Your task to perform on an android device: Go to Yahoo.com Image 0: 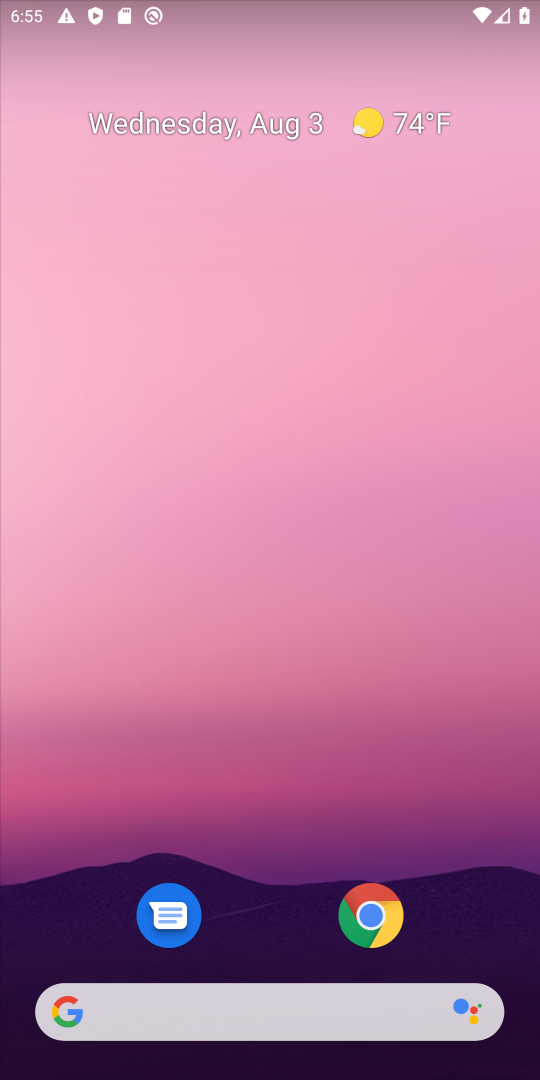
Step 0: press home button
Your task to perform on an android device: Go to Yahoo.com Image 1: 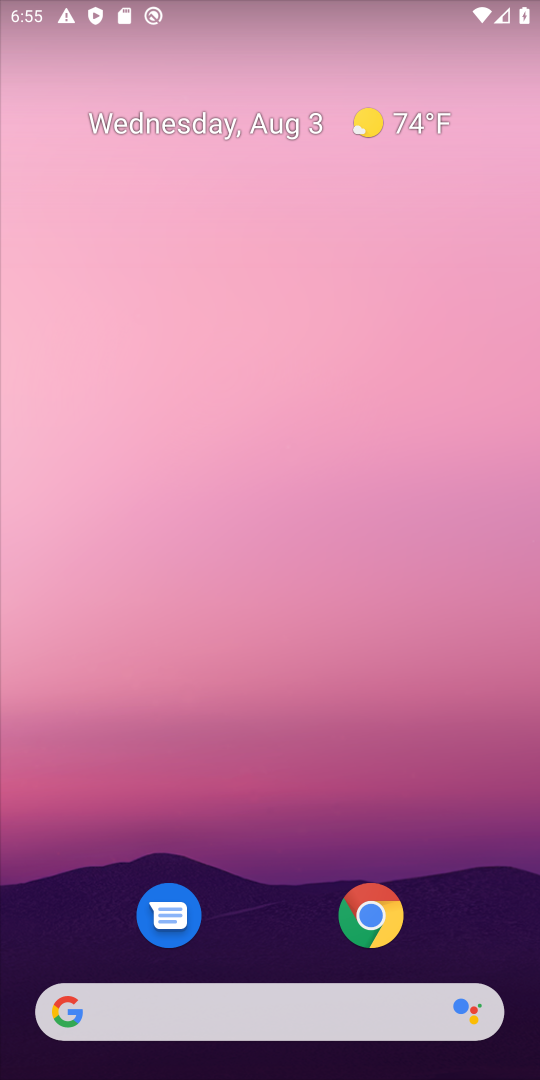
Step 1: click (378, 904)
Your task to perform on an android device: Go to Yahoo.com Image 2: 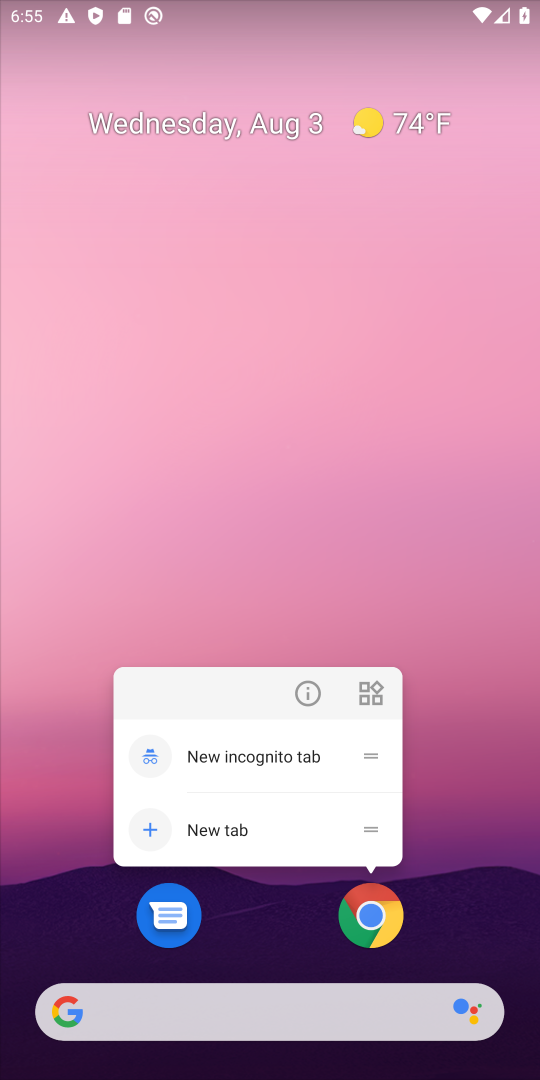
Step 2: click (366, 933)
Your task to perform on an android device: Go to Yahoo.com Image 3: 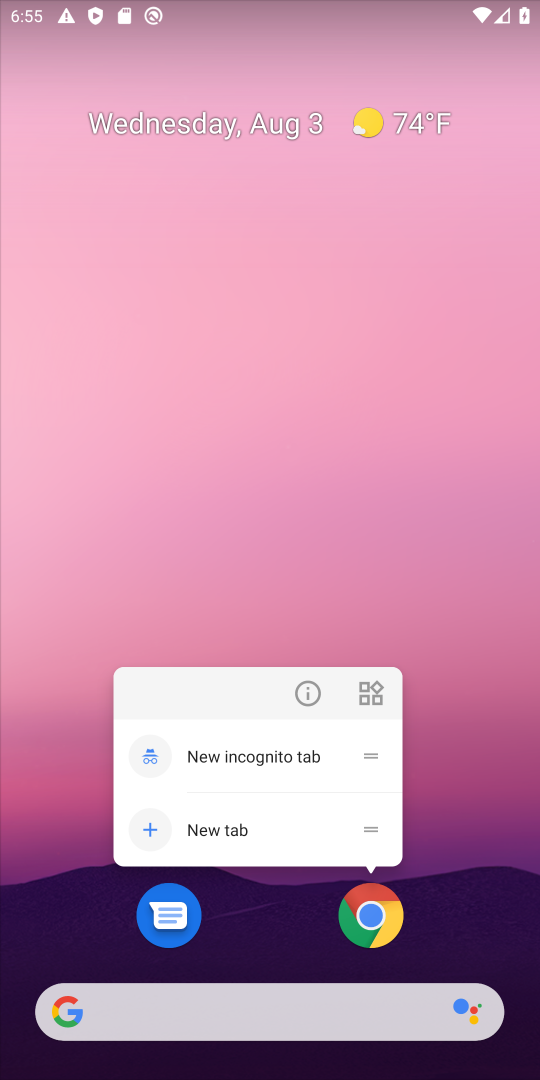
Step 3: click (366, 933)
Your task to perform on an android device: Go to Yahoo.com Image 4: 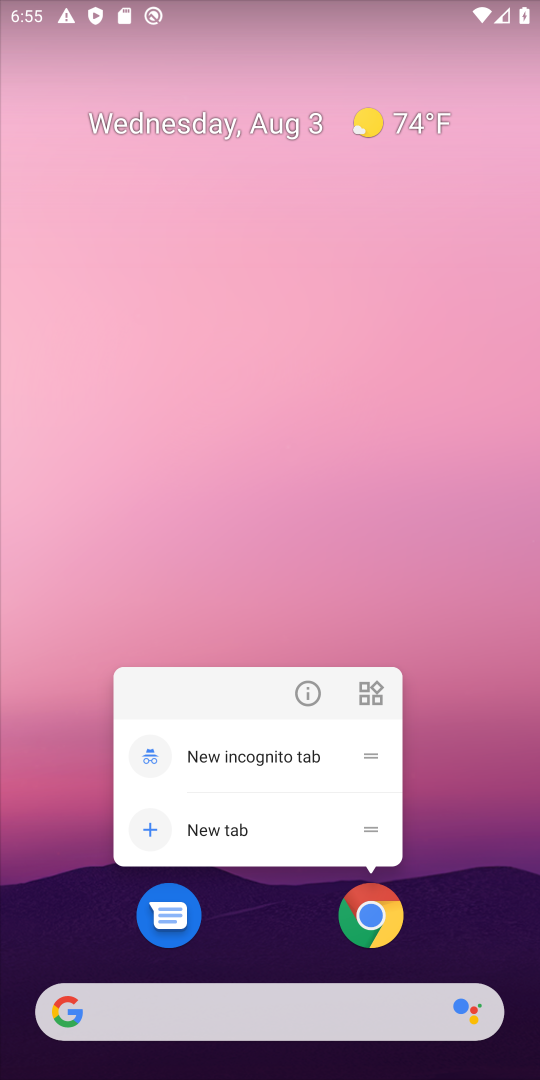
Step 4: click (366, 933)
Your task to perform on an android device: Go to Yahoo.com Image 5: 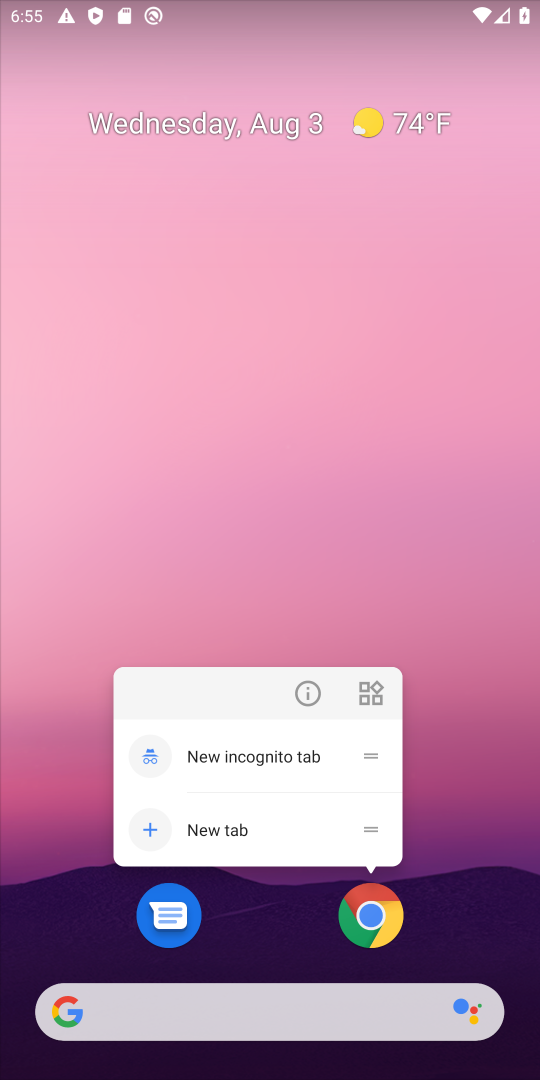
Step 5: click (385, 900)
Your task to perform on an android device: Go to Yahoo.com Image 6: 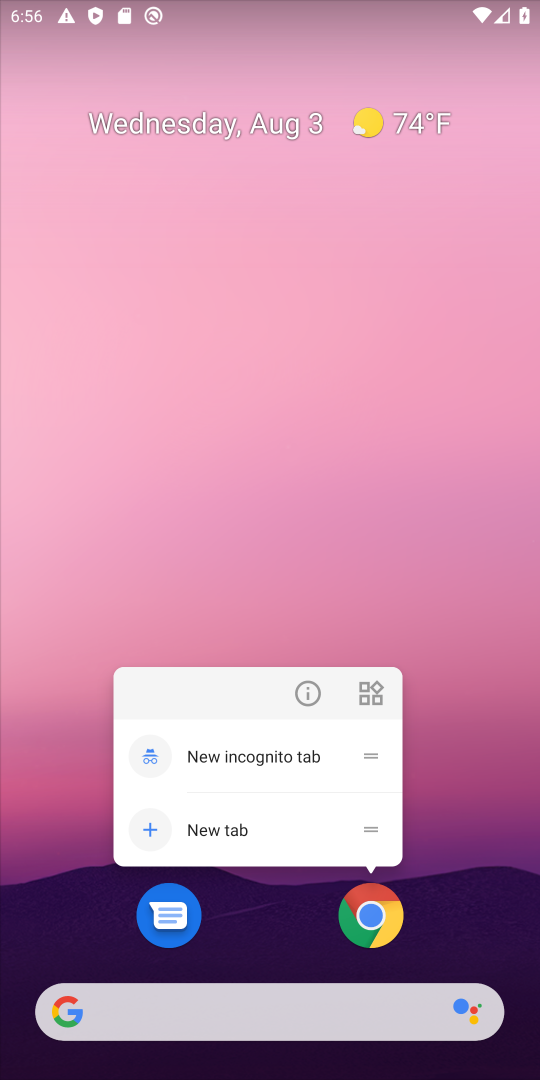
Step 6: click (370, 910)
Your task to perform on an android device: Go to Yahoo.com Image 7: 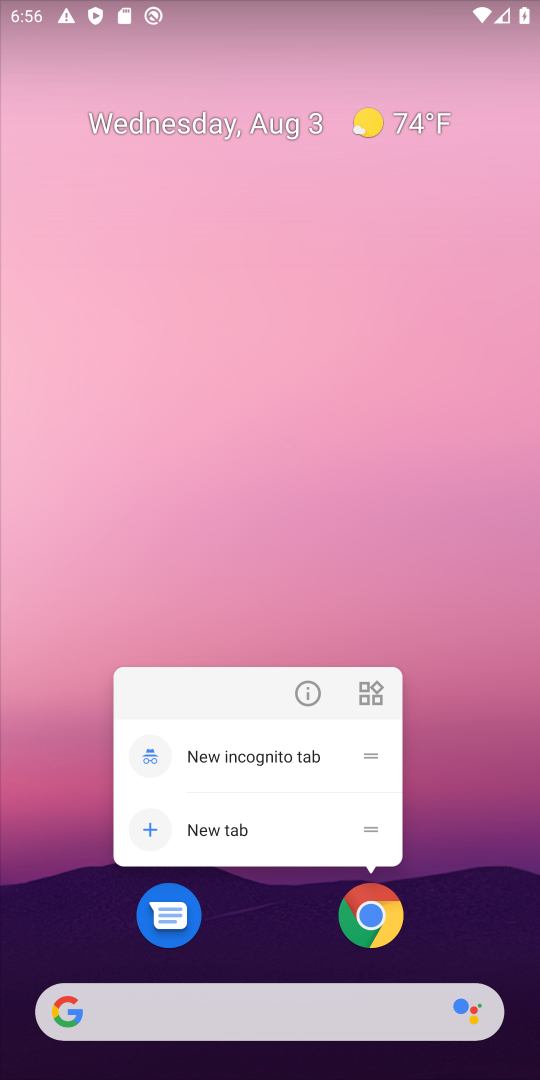
Step 7: click (370, 910)
Your task to perform on an android device: Go to Yahoo.com Image 8: 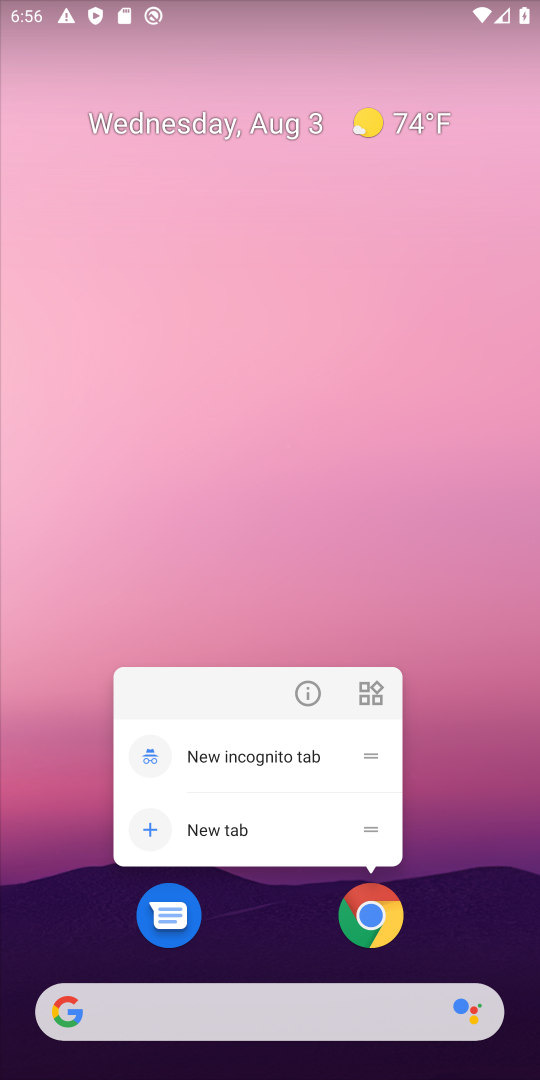
Step 8: click (368, 922)
Your task to perform on an android device: Go to Yahoo.com Image 9: 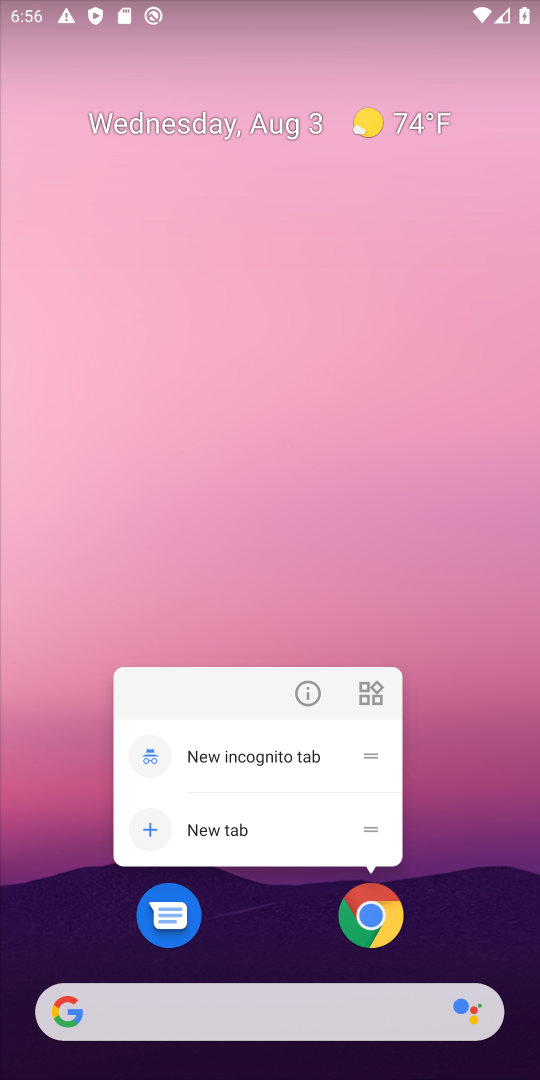
Step 9: click (368, 922)
Your task to perform on an android device: Go to Yahoo.com Image 10: 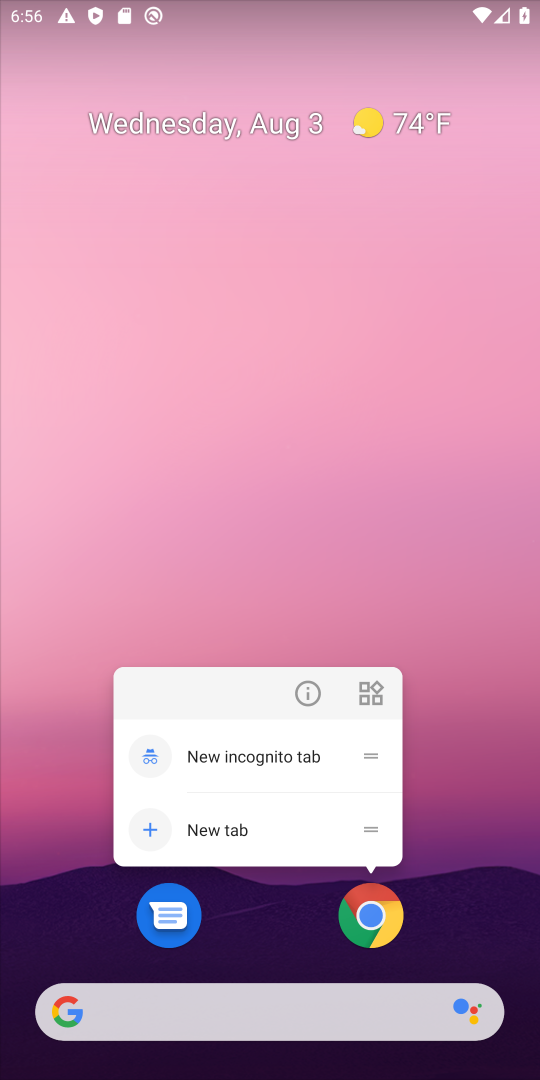
Step 10: click (368, 922)
Your task to perform on an android device: Go to Yahoo.com Image 11: 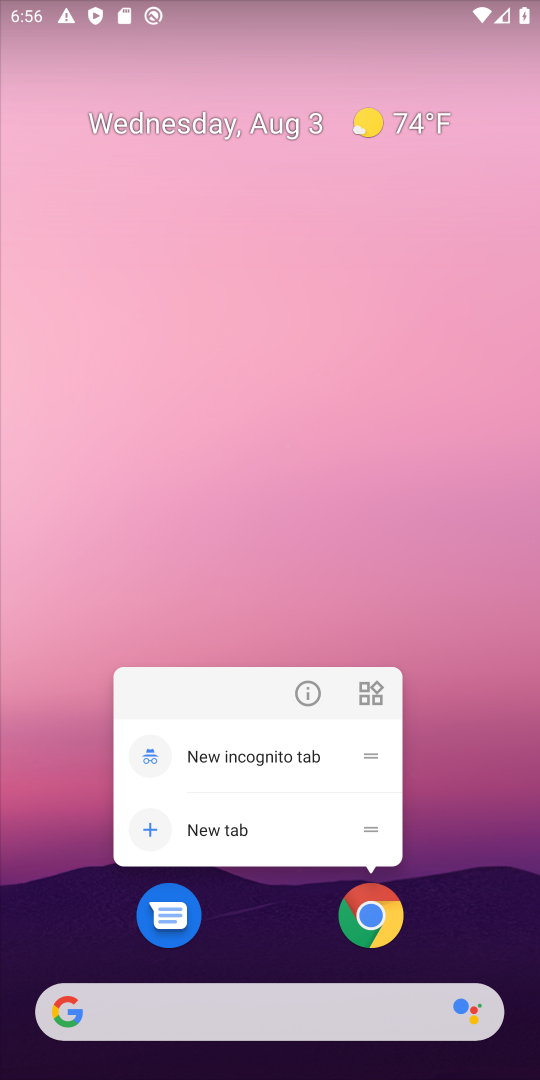
Step 11: drag from (404, 1051) to (249, 226)
Your task to perform on an android device: Go to Yahoo.com Image 12: 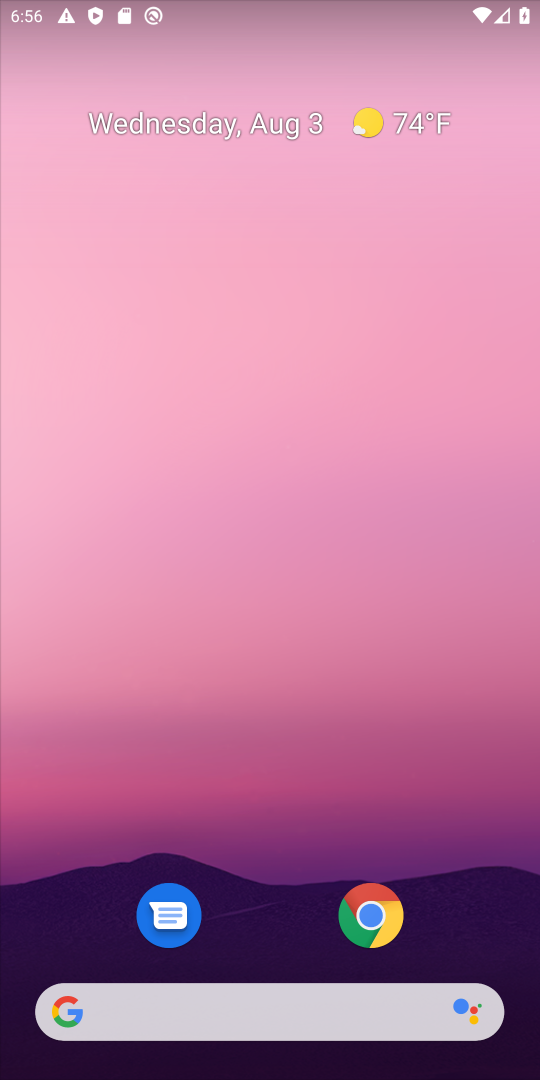
Step 12: drag from (303, 1051) to (161, 120)
Your task to perform on an android device: Go to Yahoo.com Image 13: 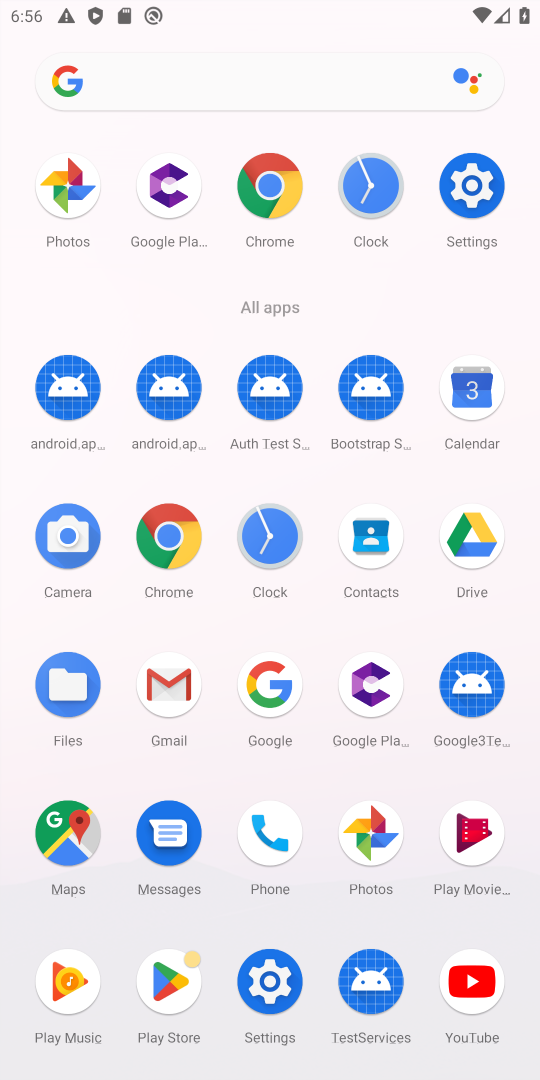
Step 13: click (243, 177)
Your task to perform on an android device: Go to Yahoo.com Image 14: 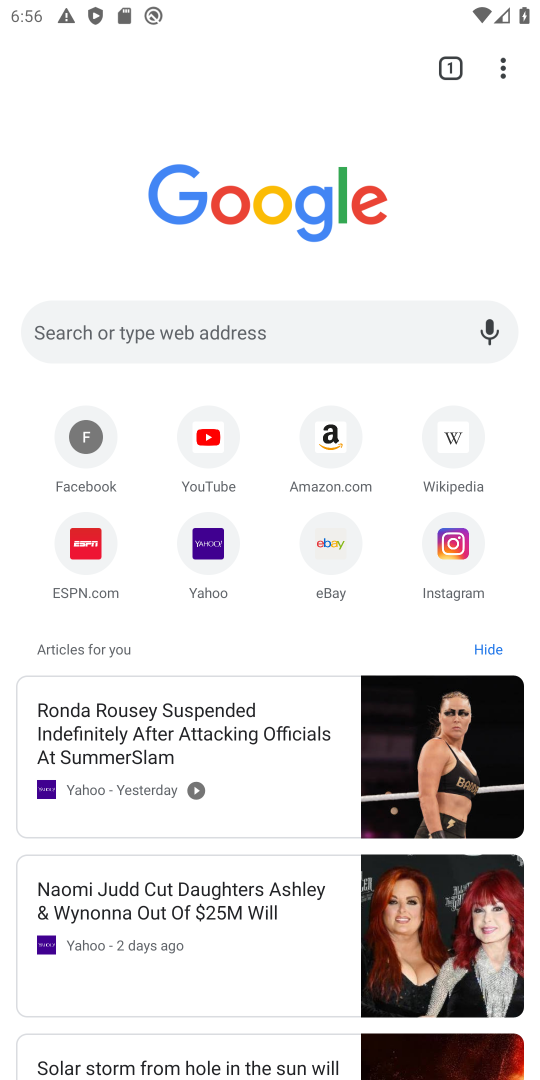
Step 14: click (187, 550)
Your task to perform on an android device: Go to Yahoo.com Image 15: 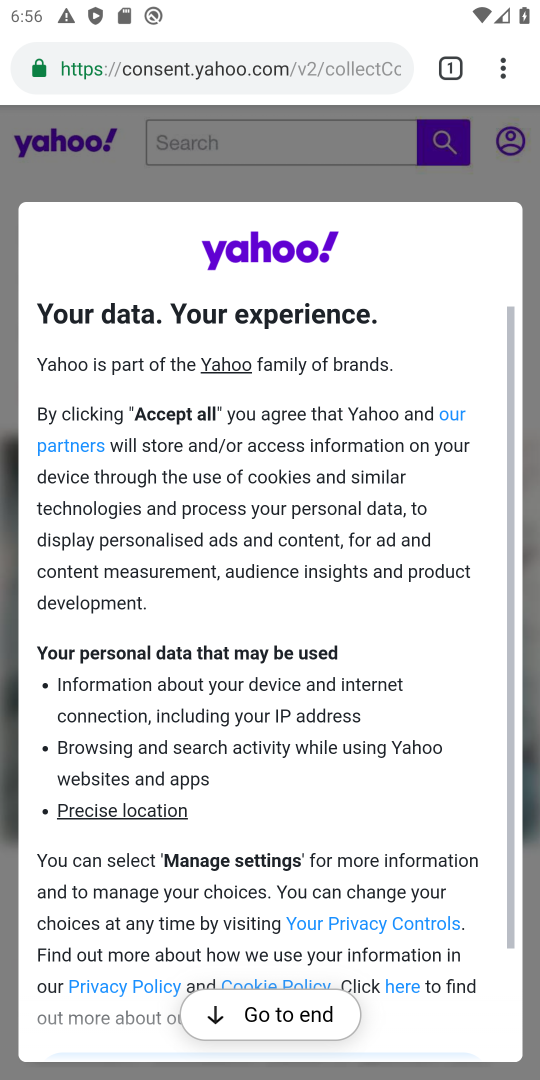
Step 15: drag from (378, 822) to (288, 301)
Your task to perform on an android device: Go to Yahoo.com Image 16: 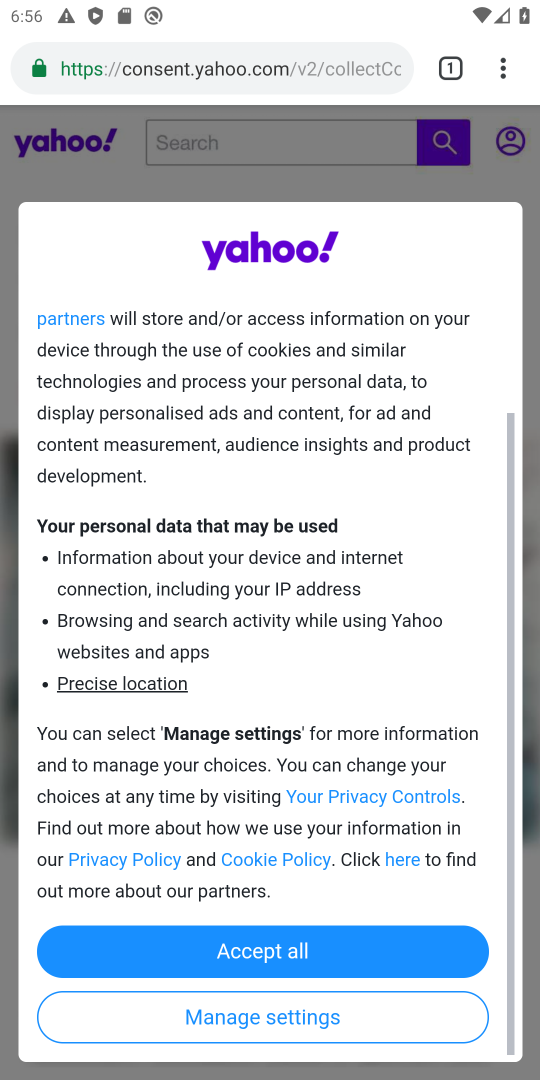
Step 16: click (286, 947)
Your task to perform on an android device: Go to Yahoo.com Image 17: 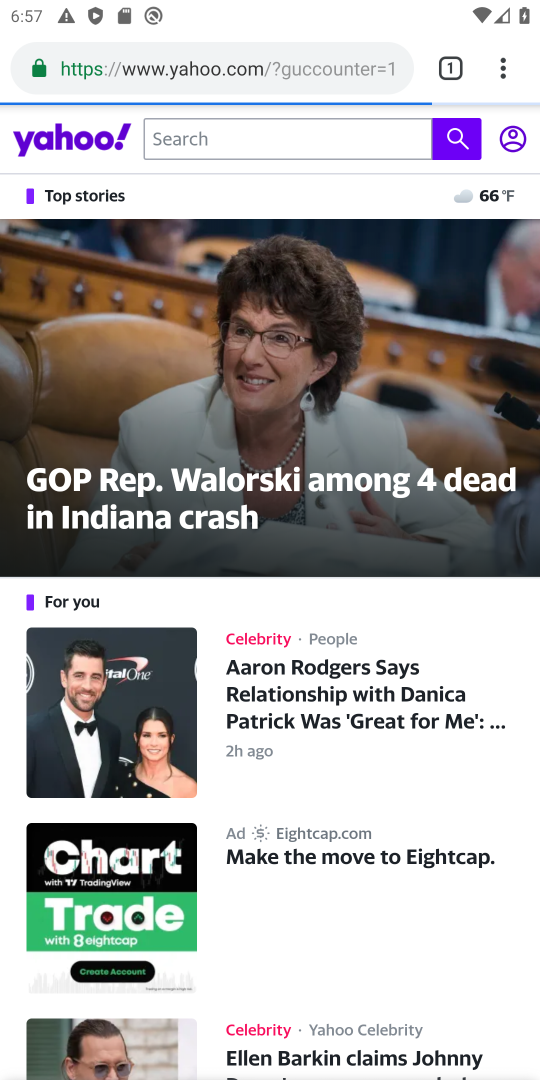
Step 17: task complete